Your task to perform on an android device: change notification settings in the gmail app Image 0: 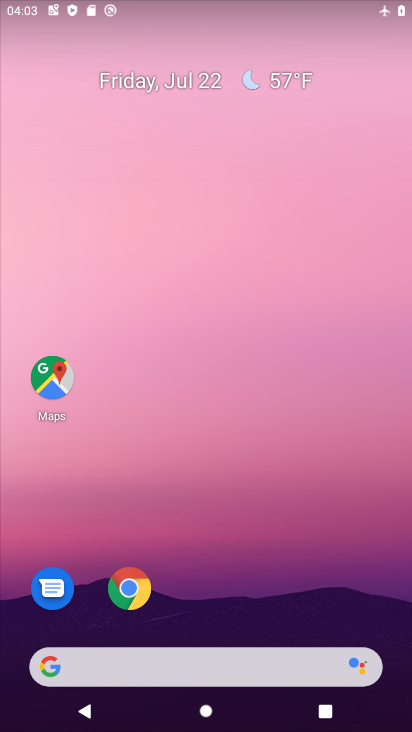
Step 0: drag from (213, 610) to (187, 25)
Your task to perform on an android device: change notification settings in the gmail app Image 1: 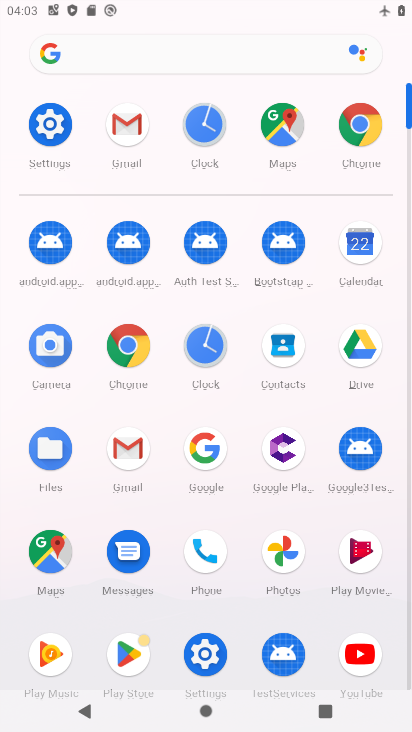
Step 1: click (109, 458)
Your task to perform on an android device: change notification settings in the gmail app Image 2: 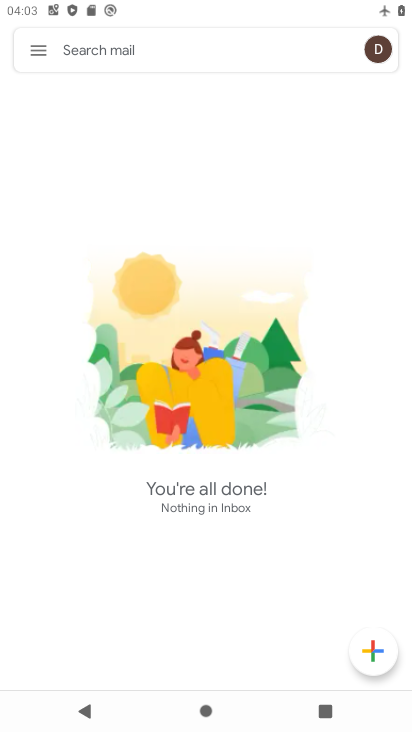
Step 2: click (39, 42)
Your task to perform on an android device: change notification settings in the gmail app Image 3: 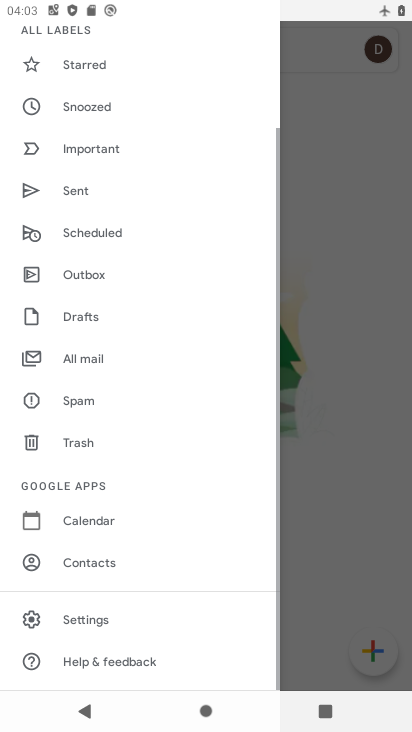
Step 3: click (66, 622)
Your task to perform on an android device: change notification settings in the gmail app Image 4: 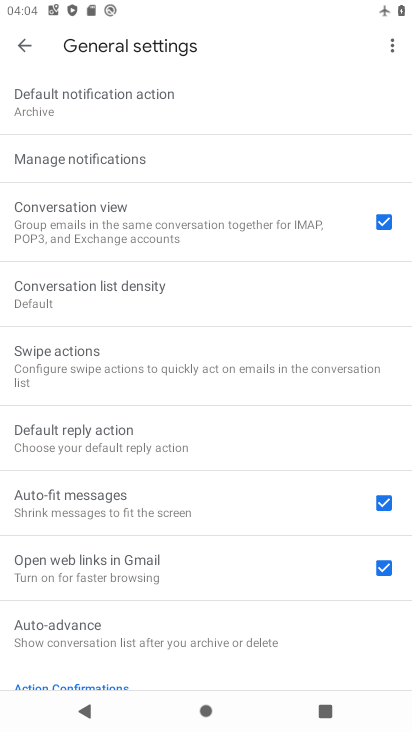
Step 4: click (112, 163)
Your task to perform on an android device: change notification settings in the gmail app Image 5: 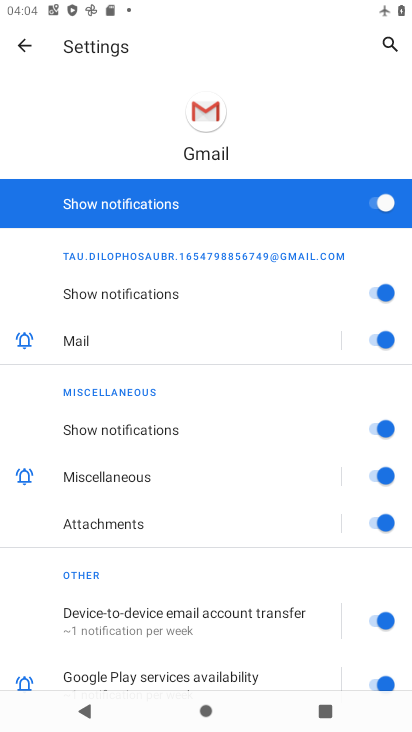
Step 5: click (376, 194)
Your task to perform on an android device: change notification settings in the gmail app Image 6: 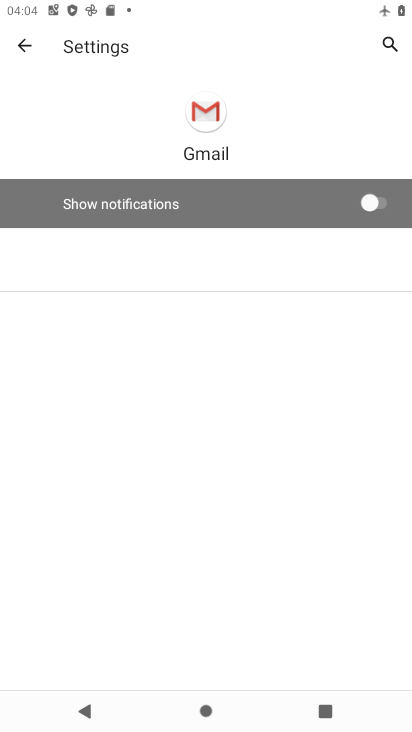
Step 6: task complete